Your task to perform on an android device: Open Google Chrome and click the shortcut for Amazon.com Image 0: 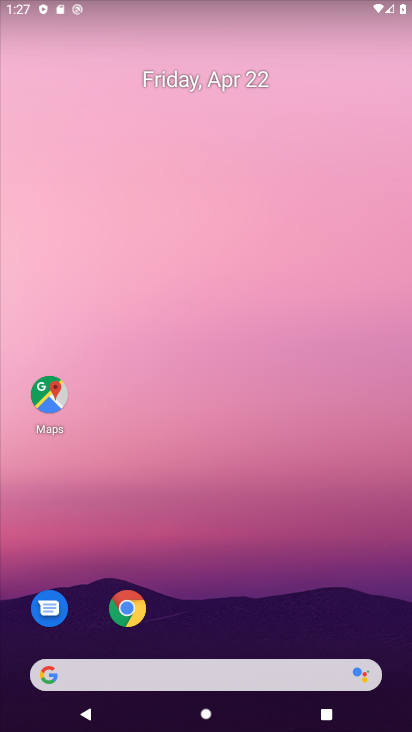
Step 0: drag from (243, 697) to (230, 156)
Your task to perform on an android device: Open Google Chrome and click the shortcut for Amazon.com Image 1: 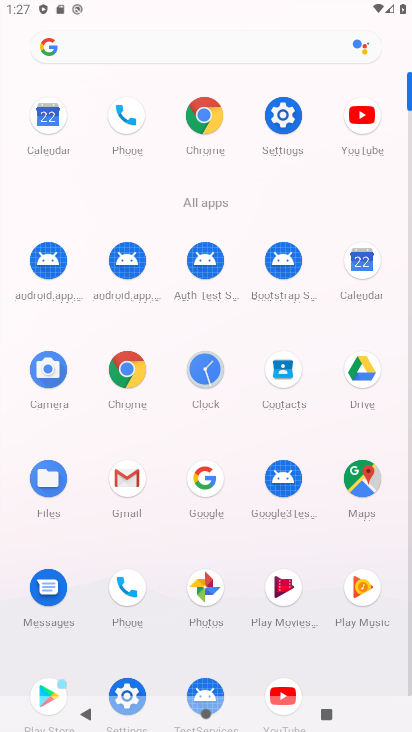
Step 1: click (208, 131)
Your task to perform on an android device: Open Google Chrome and click the shortcut for Amazon.com Image 2: 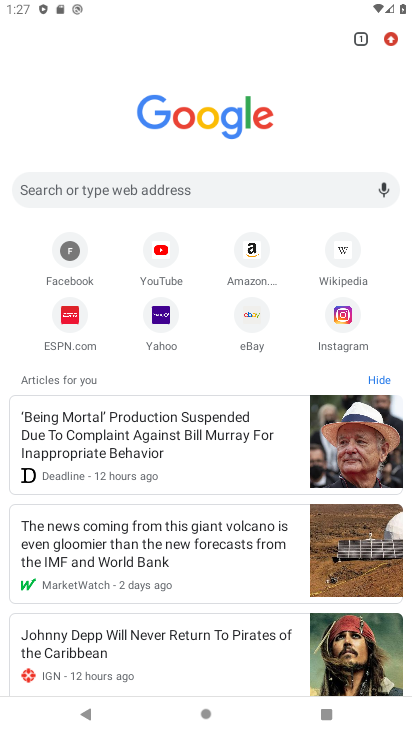
Step 2: click (396, 39)
Your task to perform on an android device: Open Google Chrome and click the shortcut for Amazon.com Image 3: 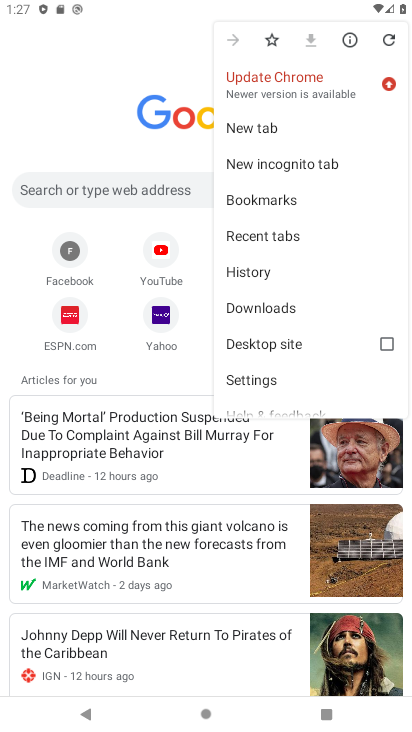
Step 3: click (116, 124)
Your task to perform on an android device: Open Google Chrome and click the shortcut for Amazon.com Image 4: 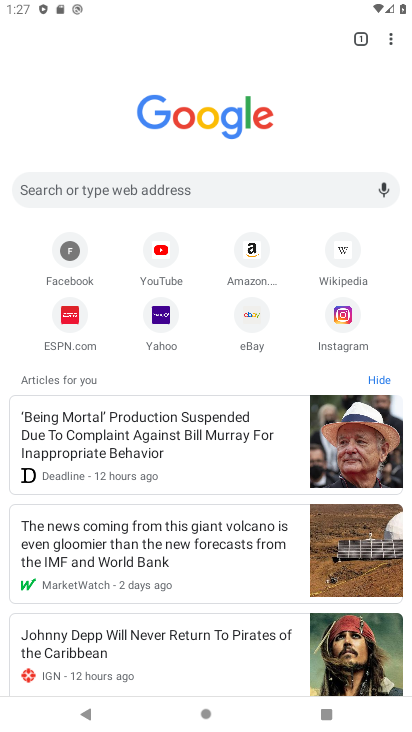
Step 4: click (259, 253)
Your task to perform on an android device: Open Google Chrome and click the shortcut for Amazon.com Image 5: 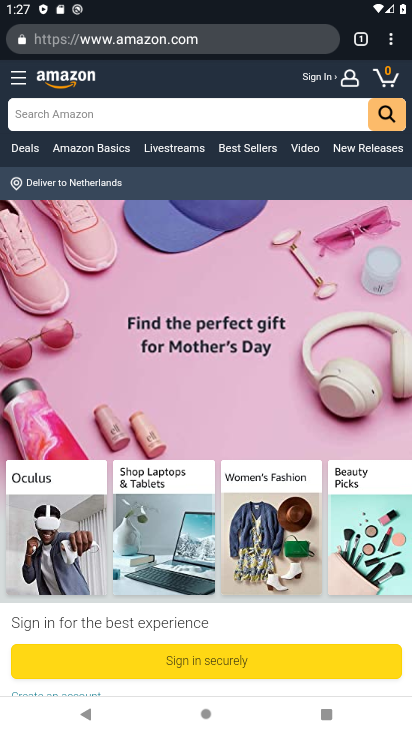
Step 5: click (388, 40)
Your task to perform on an android device: Open Google Chrome and click the shortcut for Amazon.com Image 6: 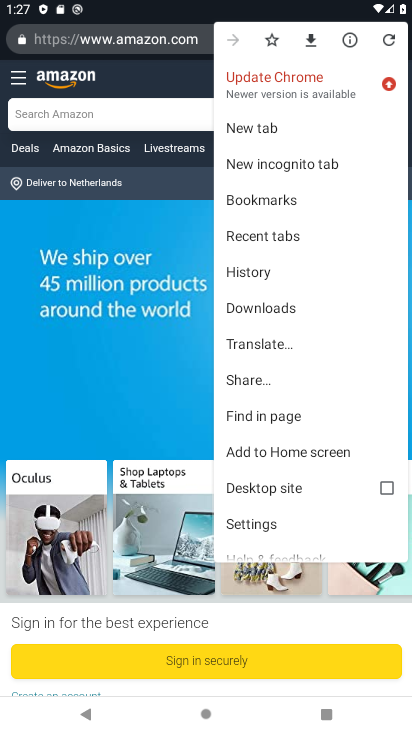
Step 6: click (252, 446)
Your task to perform on an android device: Open Google Chrome and click the shortcut for Amazon.com Image 7: 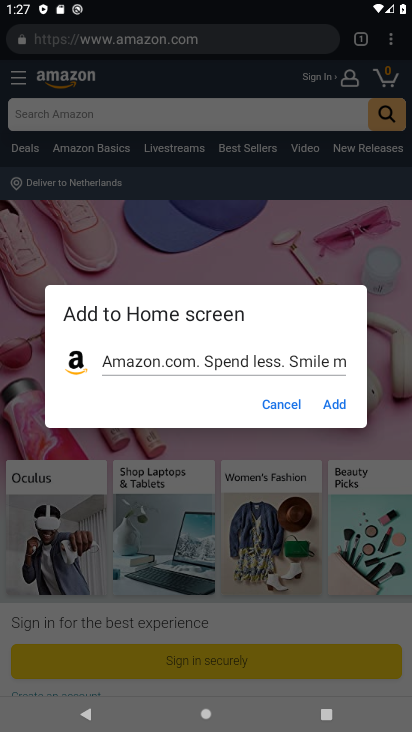
Step 7: click (342, 401)
Your task to perform on an android device: Open Google Chrome and click the shortcut for Amazon.com Image 8: 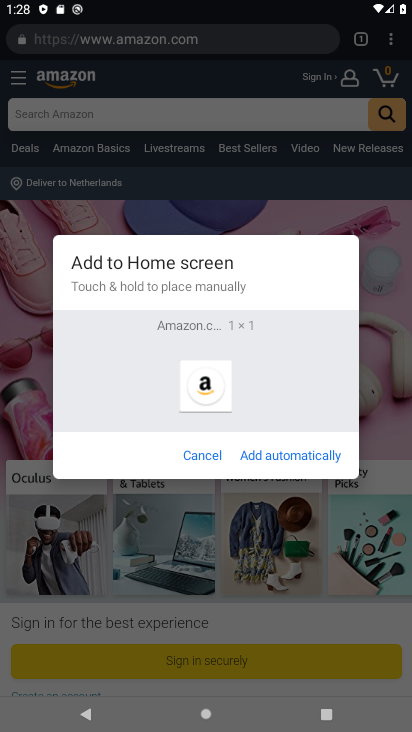
Step 8: click (293, 454)
Your task to perform on an android device: Open Google Chrome and click the shortcut for Amazon.com Image 9: 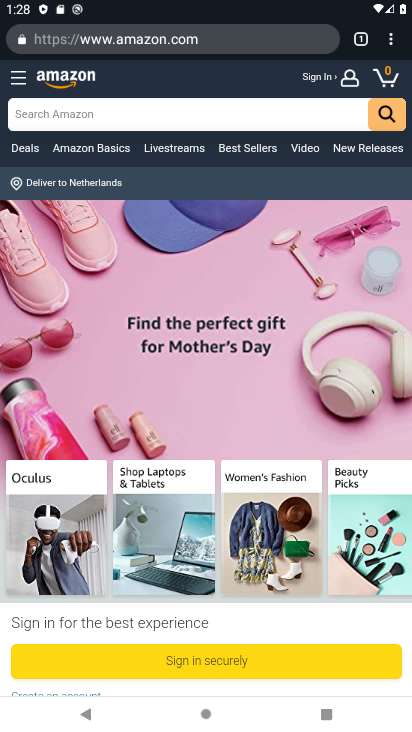
Step 9: task complete